Your task to perform on an android device: open app "Pandora - Music & Podcasts" Image 0: 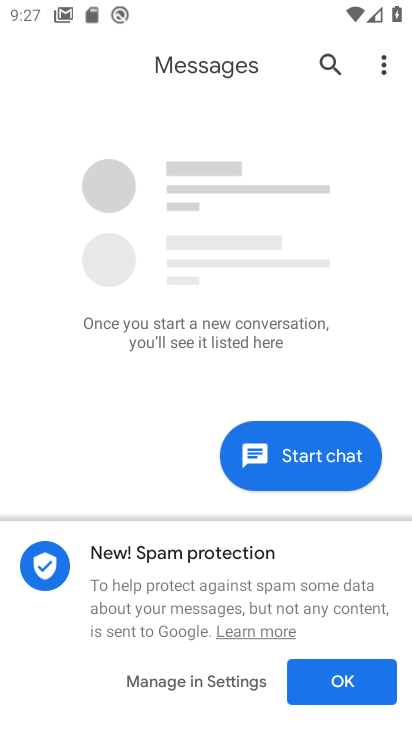
Step 0: press home button
Your task to perform on an android device: open app "Pandora - Music & Podcasts" Image 1: 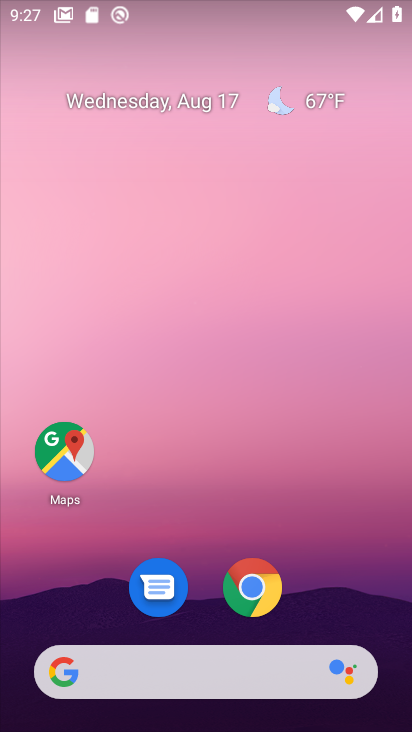
Step 1: drag from (208, 609) to (190, 5)
Your task to perform on an android device: open app "Pandora - Music & Podcasts" Image 2: 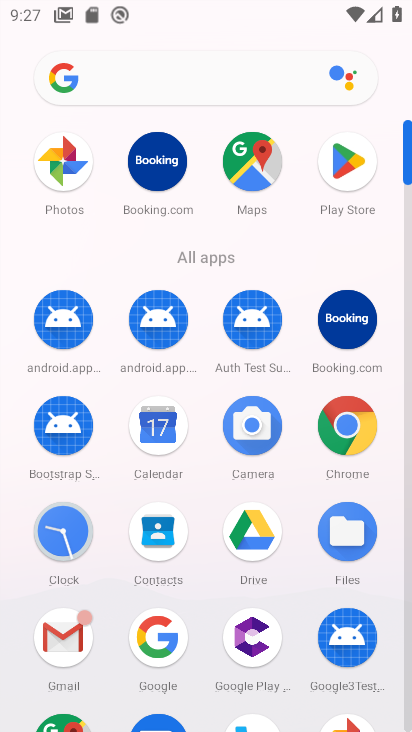
Step 2: click (347, 163)
Your task to perform on an android device: open app "Pandora - Music & Podcasts" Image 3: 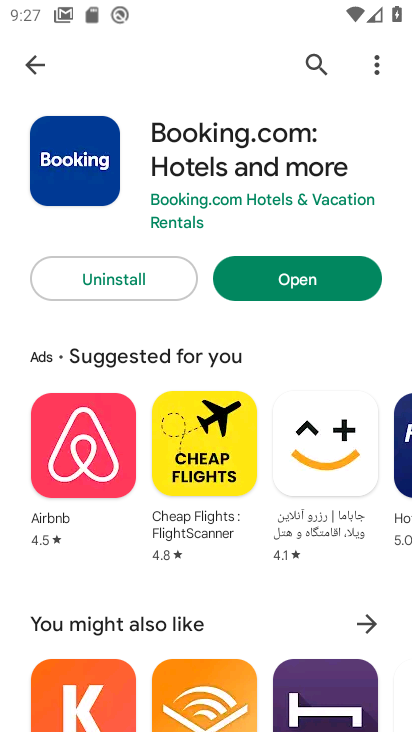
Step 3: click (33, 67)
Your task to perform on an android device: open app "Pandora - Music & Podcasts" Image 4: 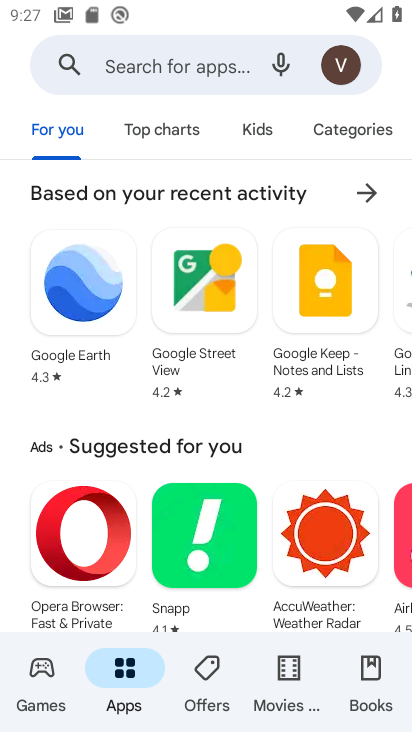
Step 4: click (160, 60)
Your task to perform on an android device: open app "Pandora - Music & Podcasts" Image 5: 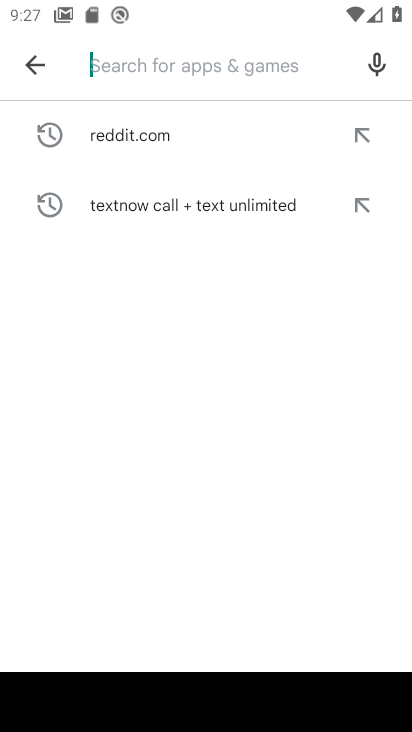
Step 5: type "Pandora"
Your task to perform on an android device: open app "Pandora - Music & Podcasts" Image 6: 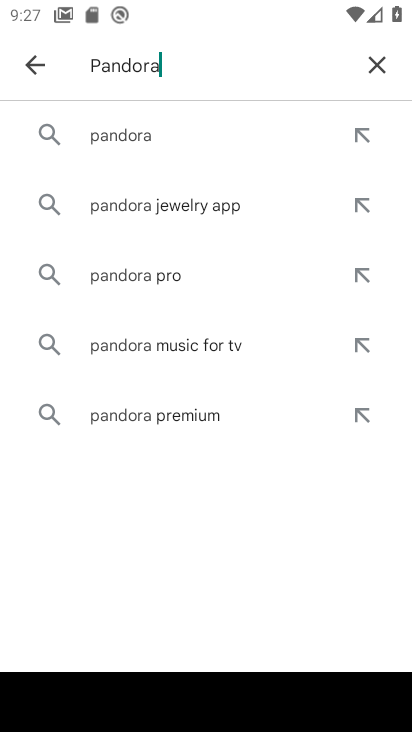
Step 6: click (122, 135)
Your task to perform on an android device: open app "Pandora - Music & Podcasts" Image 7: 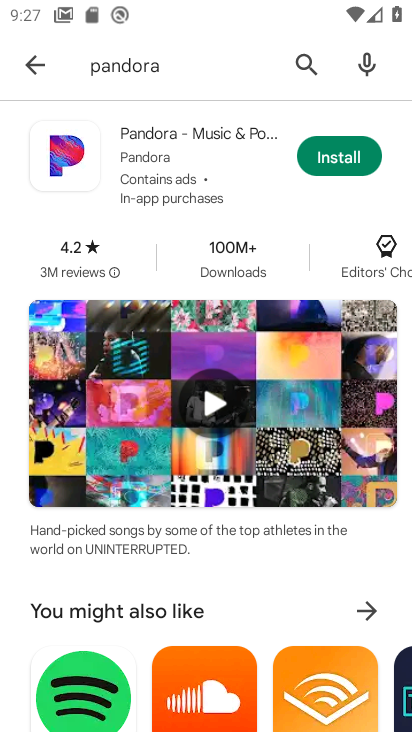
Step 7: click (349, 152)
Your task to perform on an android device: open app "Pandora - Music & Podcasts" Image 8: 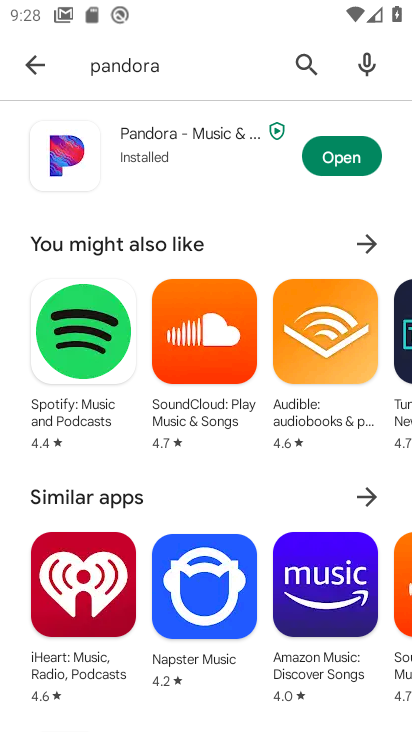
Step 8: click (349, 152)
Your task to perform on an android device: open app "Pandora - Music & Podcasts" Image 9: 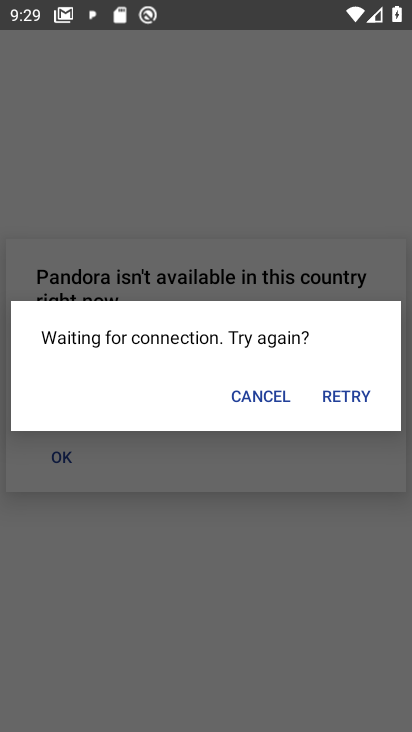
Step 9: click (251, 401)
Your task to perform on an android device: open app "Pandora - Music & Podcasts" Image 10: 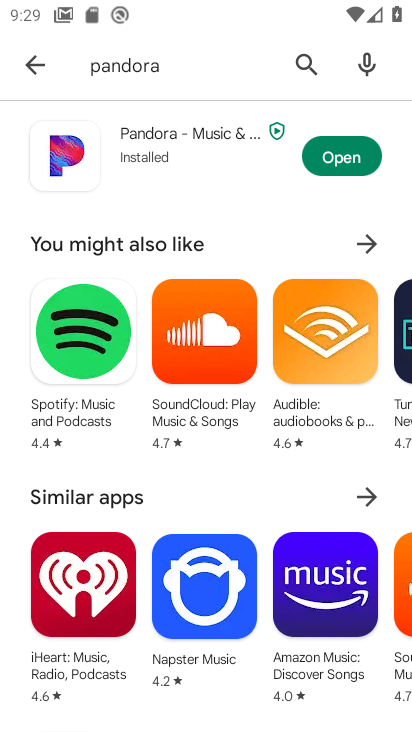
Step 10: task complete